Your task to perform on an android device: Go to Reddit.com Image 0: 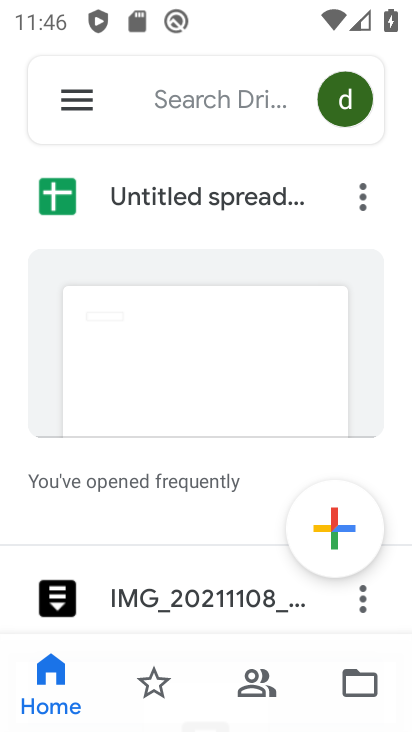
Step 0: press home button
Your task to perform on an android device: Go to Reddit.com Image 1: 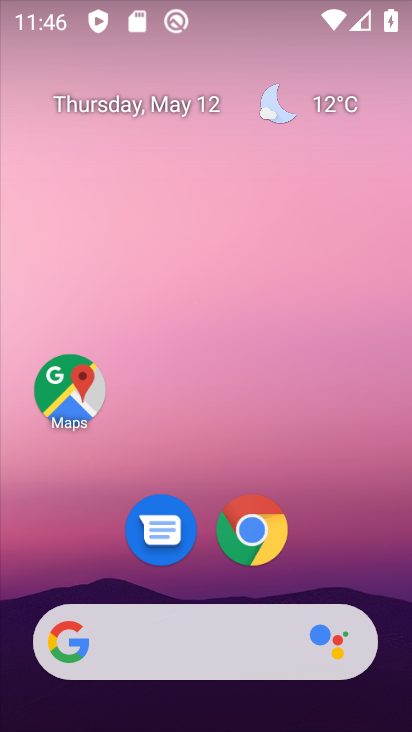
Step 1: click (272, 525)
Your task to perform on an android device: Go to Reddit.com Image 2: 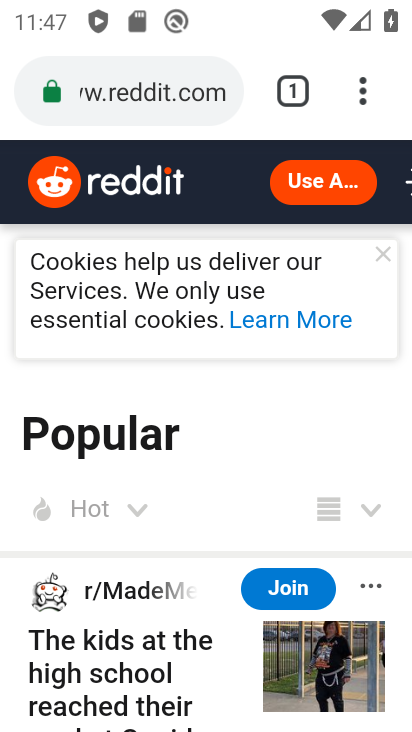
Step 2: task complete